Your task to perform on an android device: allow cookies in the chrome app Image 0: 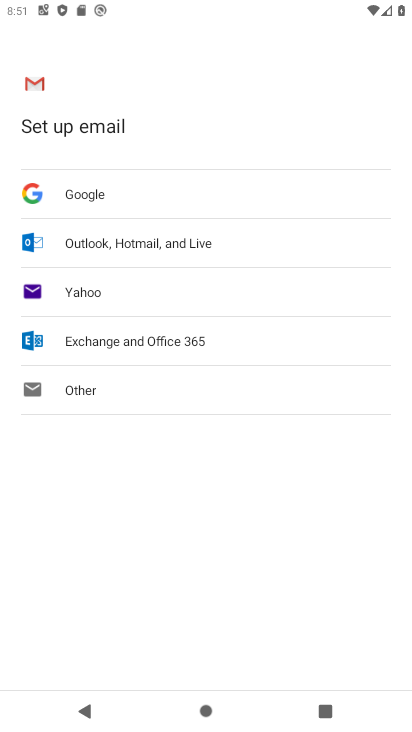
Step 0: press home button
Your task to perform on an android device: allow cookies in the chrome app Image 1: 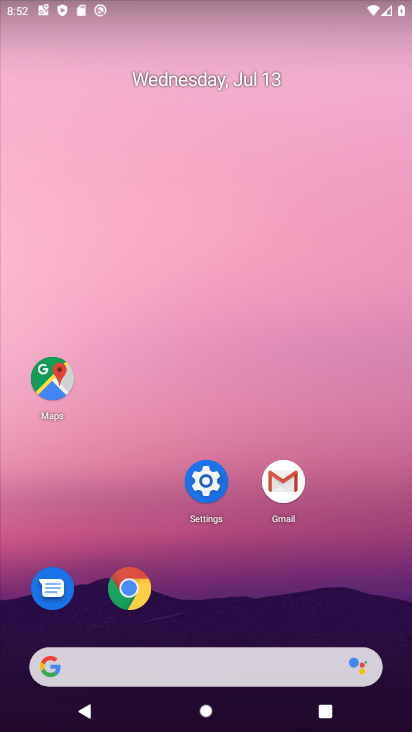
Step 1: click (131, 591)
Your task to perform on an android device: allow cookies in the chrome app Image 2: 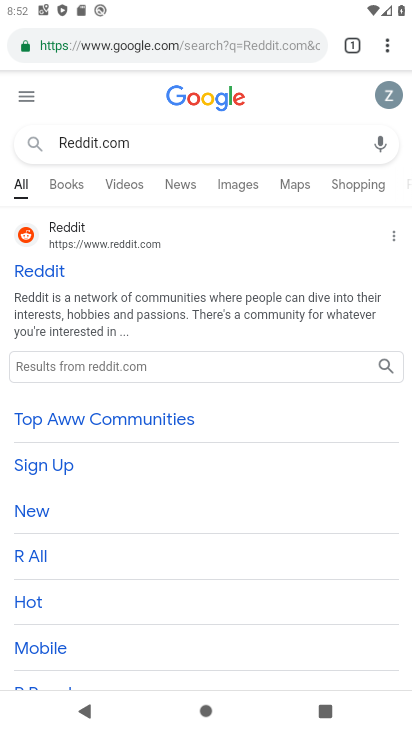
Step 2: click (384, 46)
Your task to perform on an android device: allow cookies in the chrome app Image 3: 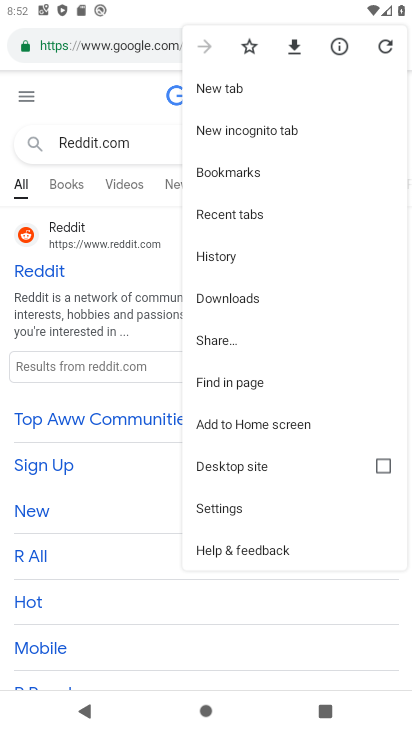
Step 3: click (220, 504)
Your task to perform on an android device: allow cookies in the chrome app Image 4: 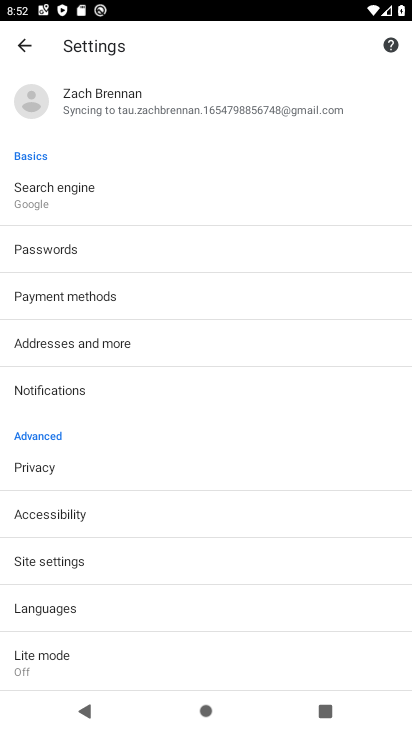
Step 4: click (30, 551)
Your task to perform on an android device: allow cookies in the chrome app Image 5: 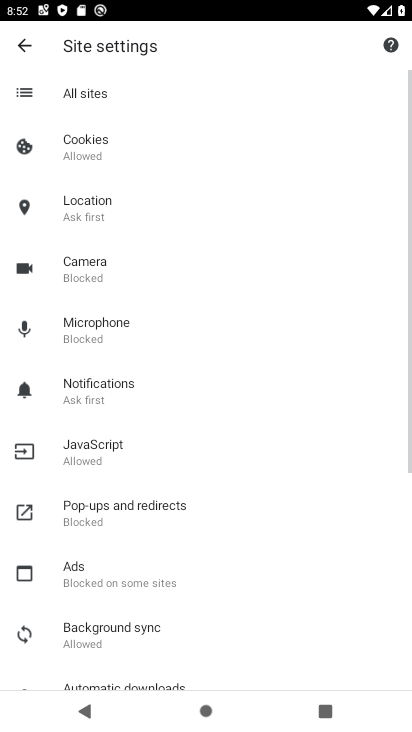
Step 5: click (89, 143)
Your task to perform on an android device: allow cookies in the chrome app Image 6: 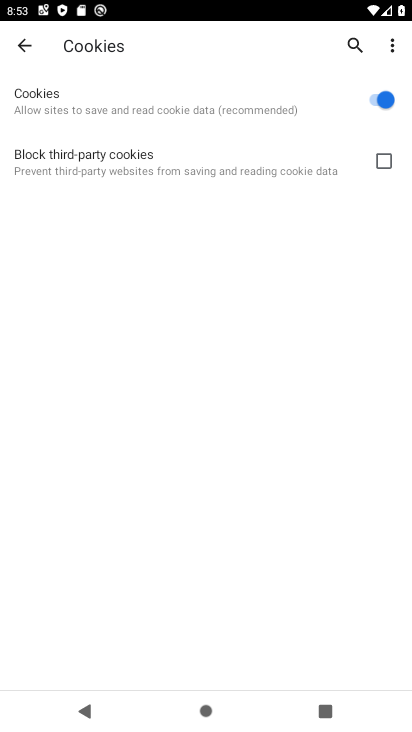
Step 6: task complete